Your task to perform on an android device: Open ESPN.com Image 0: 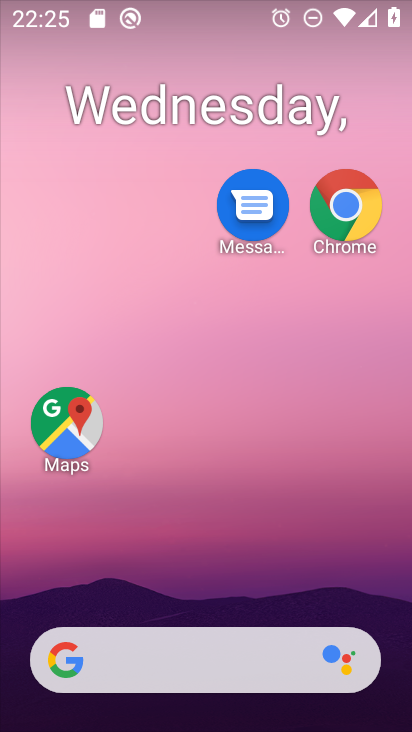
Step 0: drag from (218, 538) to (232, 87)
Your task to perform on an android device: Open ESPN.com Image 1: 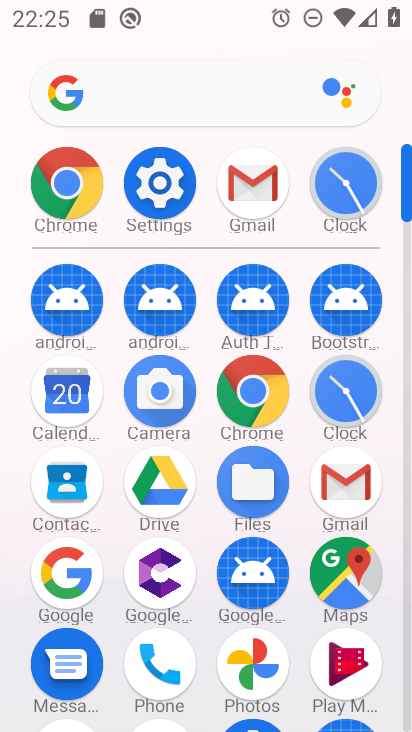
Step 1: click (254, 402)
Your task to perform on an android device: Open ESPN.com Image 2: 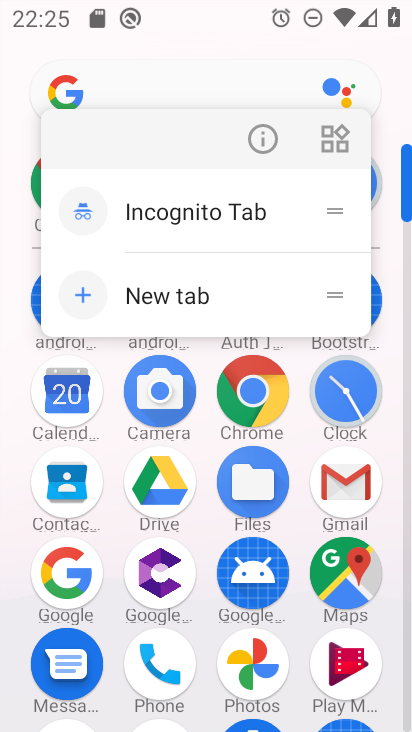
Step 2: click (260, 147)
Your task to perform on an android device: Open ESPN.com Image 3: 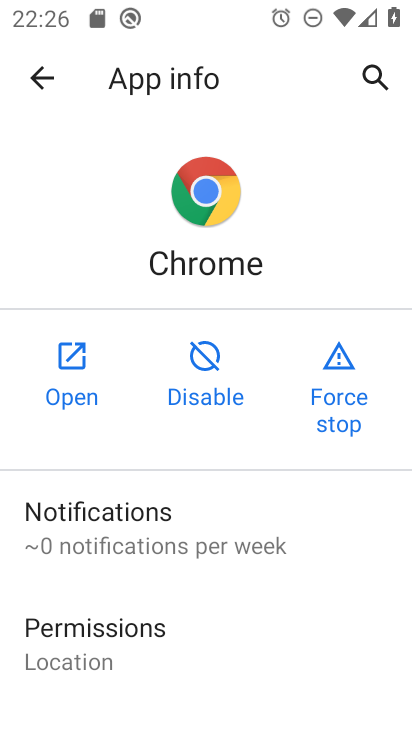
Step 3: click (66, 376)
Your task to perform on an android device: Open ESPN.com Image 4: 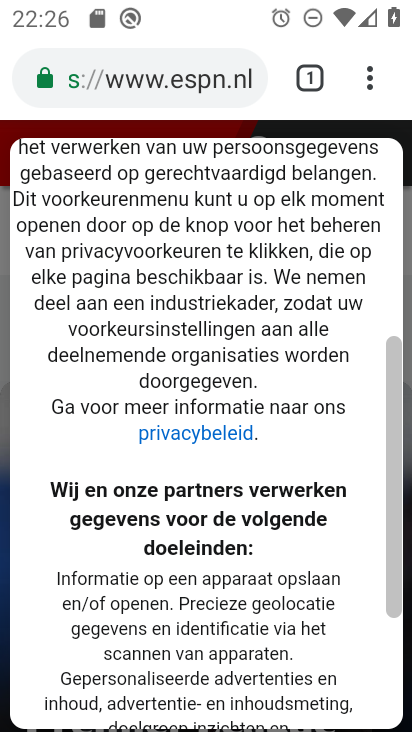
Step 4: drag from (156, 433) to (232, 175)
Your task to perform on an android device: Open ESPN.com Image 5: 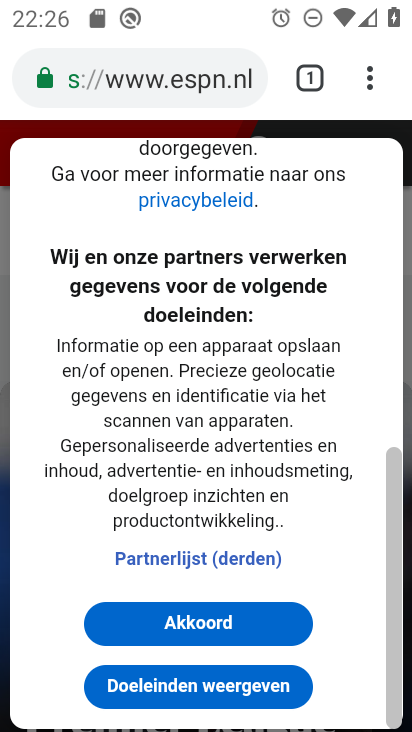
Step 5: drag from (209, 592) to (289, 298)
Your task to perform on an android device: Open ESPN.com Image 6: 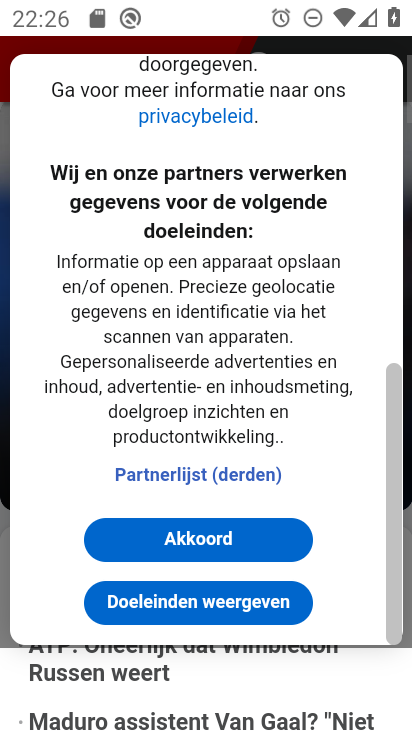
Step 6: click (180, 620)
Your task to perform on an android device: Open ESPN.com Image 7: 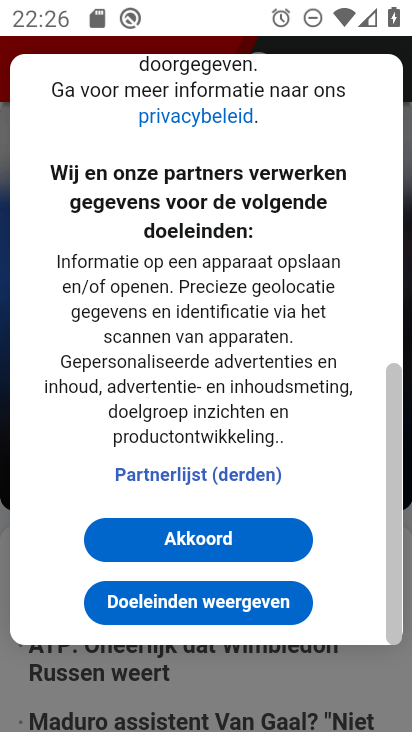
Step 7: click (174, 544)
Your task to perform on an android device: Open ESPN.com Image 8: 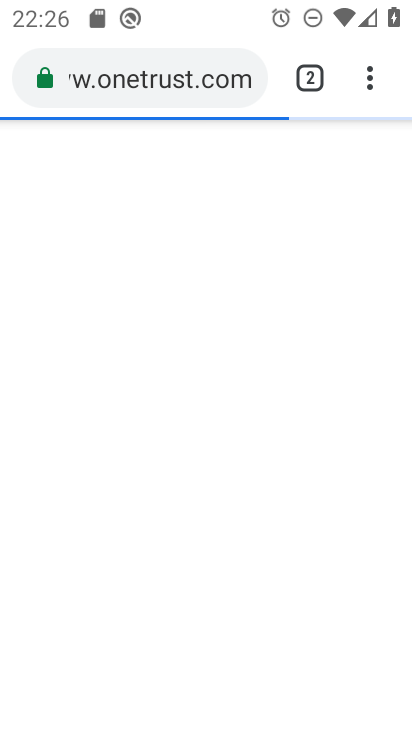
Step 8: drag from (248, 521) to (269, 219)
Your task to perform on an android device: Open ESPN.com Image 9: 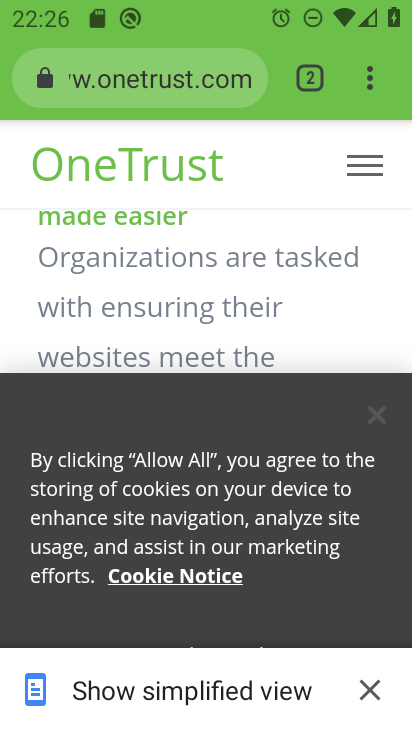
Step 9: press back button
Your task to perform on an android device: Open ESPN.com Image 10: 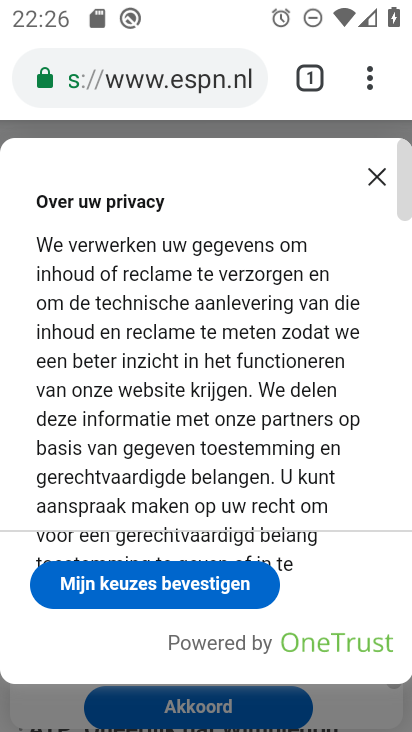
Step 10: click (375, 180)
Your task to perform on an android device: Open ESPN.com Image 11: 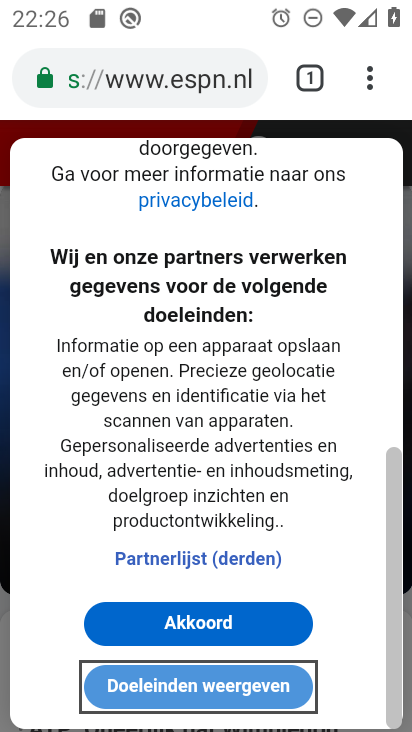
Step 11: click (186, 618)
Your task to perform on an android device: Open ESPN.com Image 12: 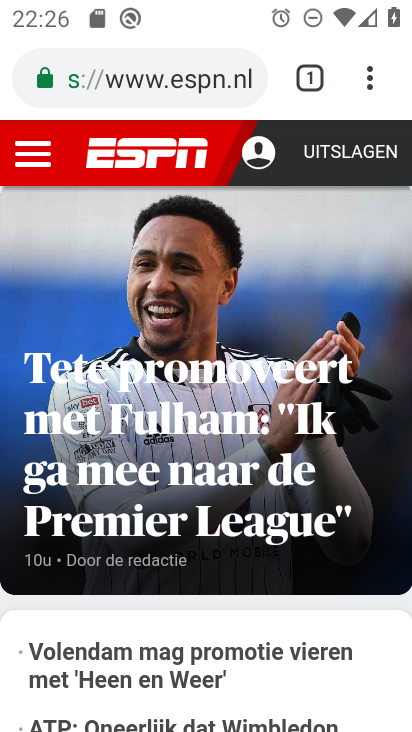
Step 12: task complete